Your task to perform on an android device: set default search engine in the chrome app Image 0: 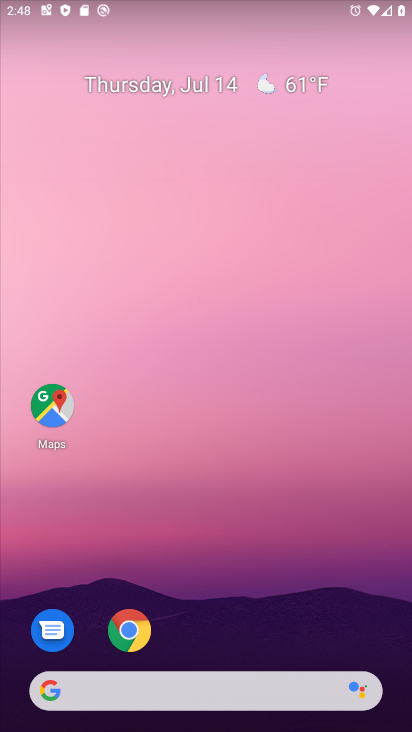
Step 0: press home button
Your task to perform on an android device: set default search engine in the chrome app Image 1: 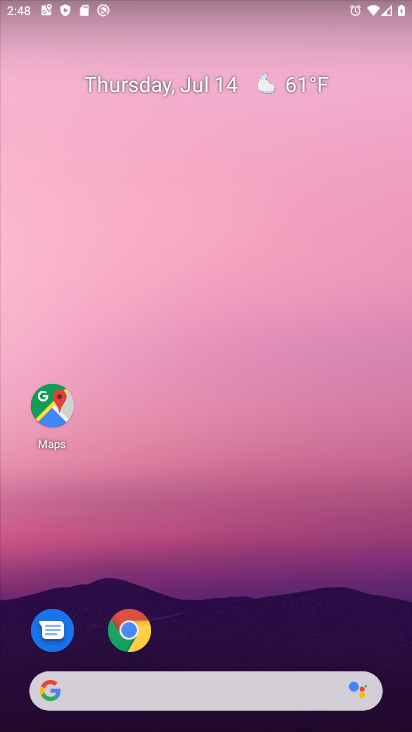
Step 1: click (128, 637)
Your task to perform on an android device: set default search engine in the chrome app Image 2: 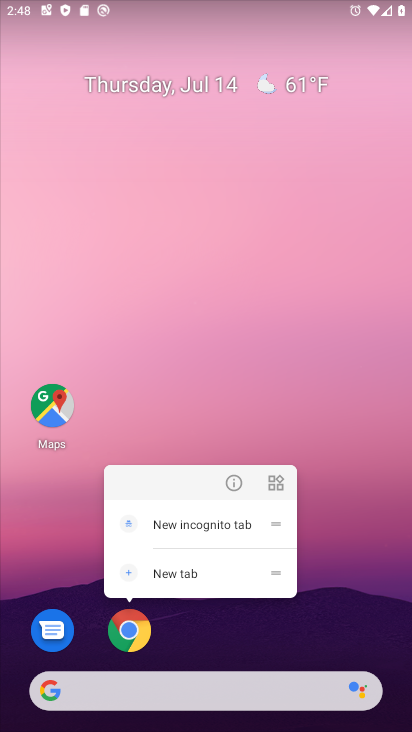
Step 2: click (144, 620)
Your task to perform on an android device: set default search engine in the chrome app Image 3: 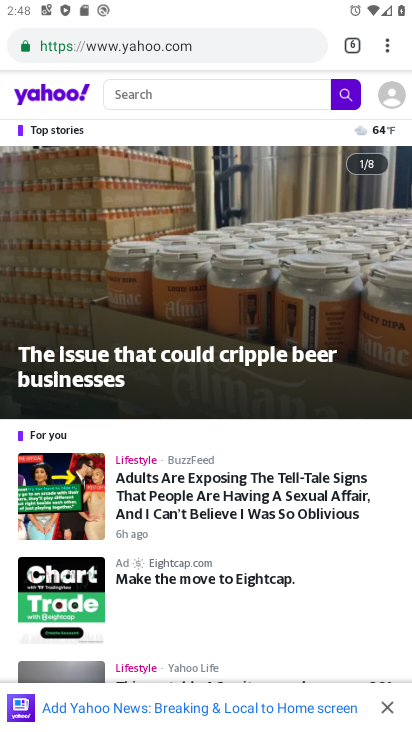
Step 3: drag from (390, 42) to (249, 597)
Your task to perform on an android device: set default search engine in the chrome app Image 4: 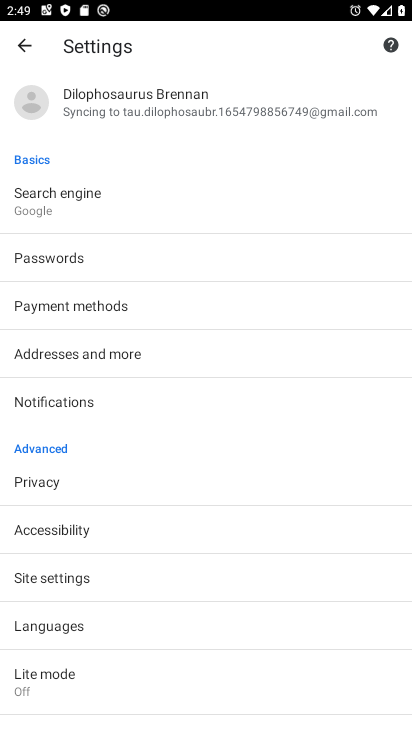
Step 4: click (73, 215)
Your task to perform on an android device: set default search engine in the chrome app Image 5: 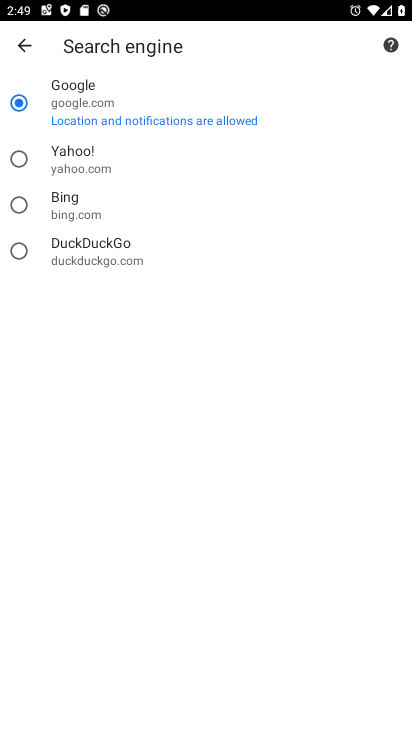
Step 5: click (25, 151)
Your task to perform on an android device: set default search engine in the chrome app Image 6: 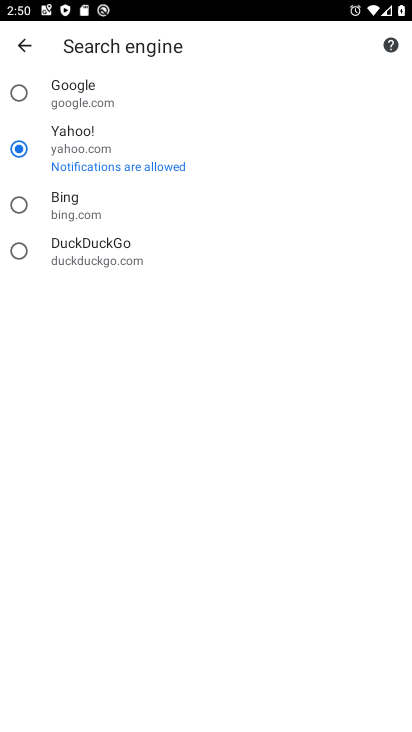
Step 6: task complete